Your task to perform on an android device: find photos in the google photos app Image 0: 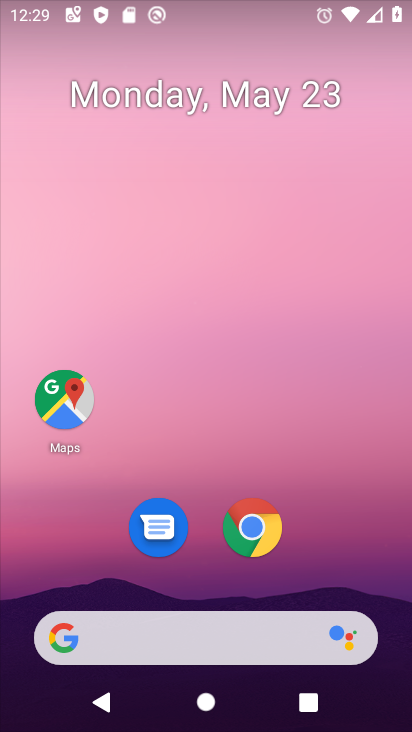
Step 0: drag from (370, 561) to (293, 23)
Your task to perform on an android device: find photos in the google photos app Image 1: 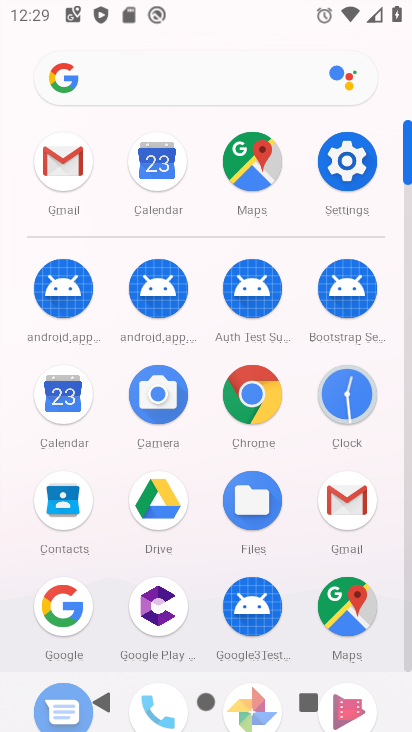
Step 1: click (272, 667)
Your task to perform on an android device: find photos in the google photos app Image 2: 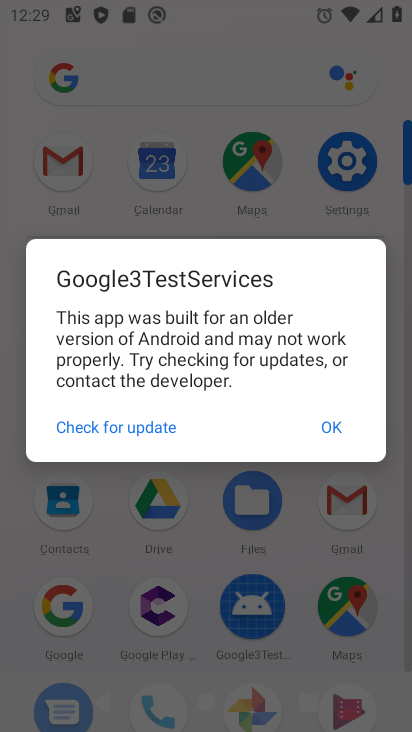
Step 2: task complete